Your task to perform on an android device: What's the weather today? Image 0: 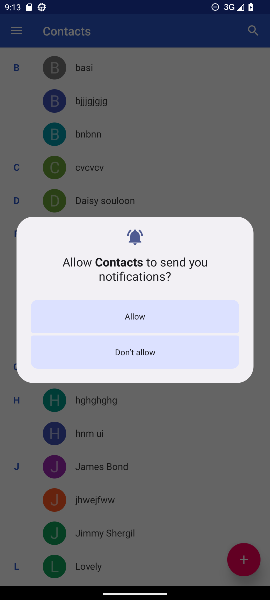
Step 0: press home button
Your task to perform on an android device: What's the weather today? Image 1: 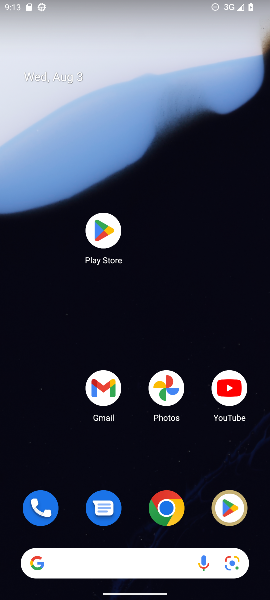
Step 1: click (125, 554)
Your task to perform on an android device: What's the weather today? Image 2: 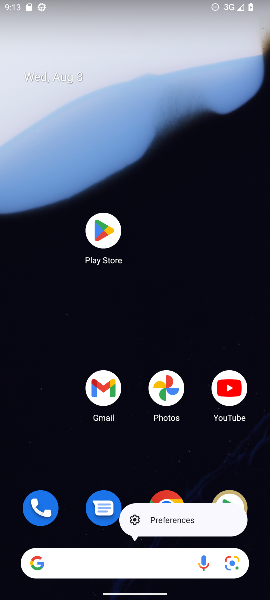
Step 2: click (125, 557)
Your task to perform on an android device: What's the weather today? Image 3: 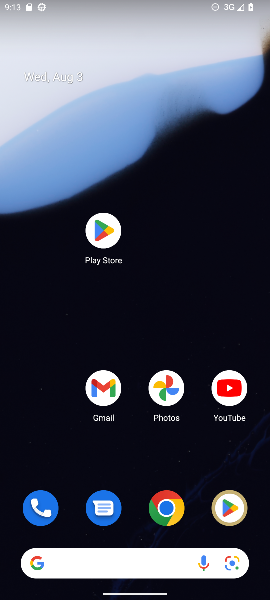
Step 3: click (118, 552)
Your task to perform on an android device: What's the weather today? Image 4: 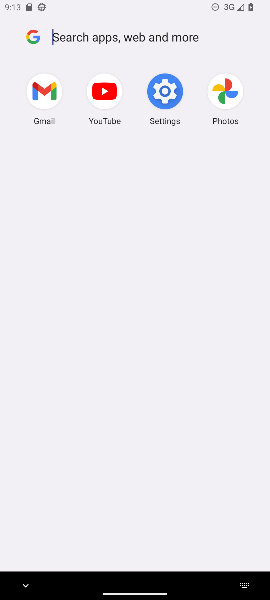
Step 4: press home button
Your task to perform on an android device: What's the weather today? Image 5: 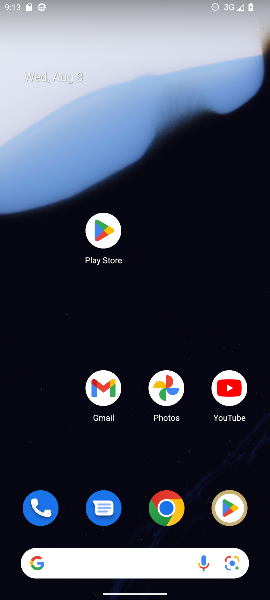
Step 5: drag from (157, 542) to (169, 82)
Your task to perform on an android device: What's the weather today? Image 6: 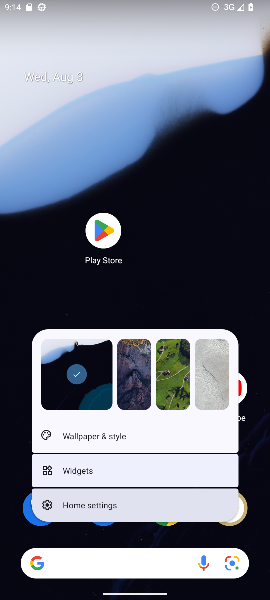
Step 6: click (108, 248)
Your task to perform on an android device: What's the weather today? Image 7: 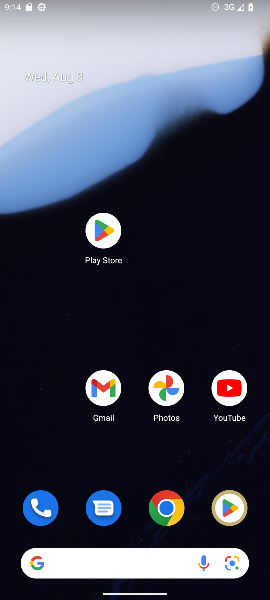
Step 7: drag from (133, 509) to (127, 74)
Your task to perform on an android device: What's the weather today? Image 8: 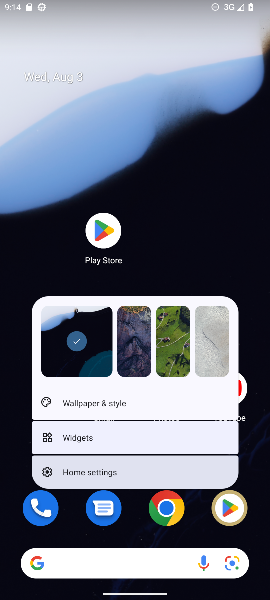
Step 8: click (126, 130)
Your task to perform on an android device: What's the weather today? Image 9: 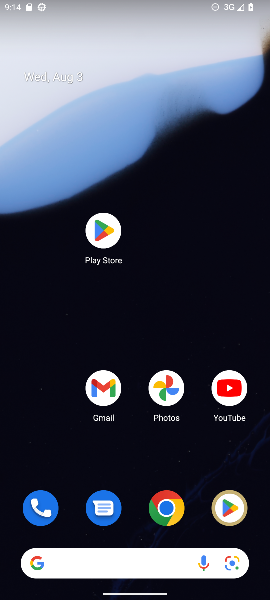
Step 9: drag from (60, 532) to (73, 45)
Your task to perform on an android device: What's the weather today? Image 10: 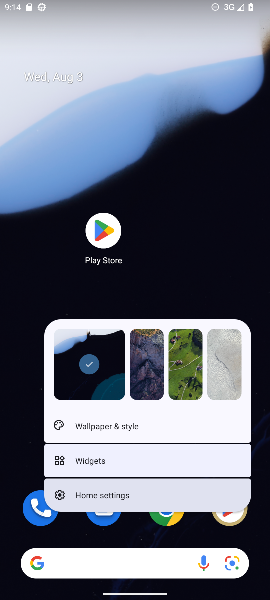
Step 10: click (105, 188)
Your task to perform on an android device: What's the weather today? Image 11: 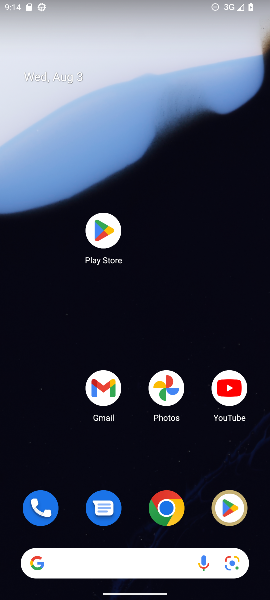
Step 11: drag from (135, 541) to (50, 488)
Your task to perform on an android device: What's the weather today? Image 12: 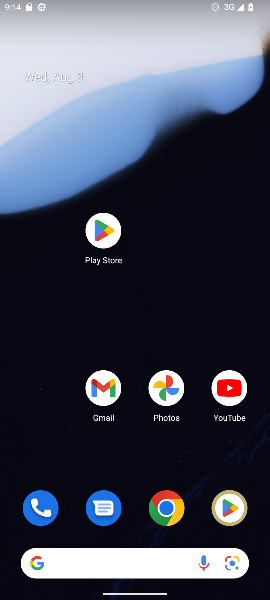
Step 12: drag from (153, 547) to (154, 27)
Your task to perform on an android device: What's the weather today? Image 13: 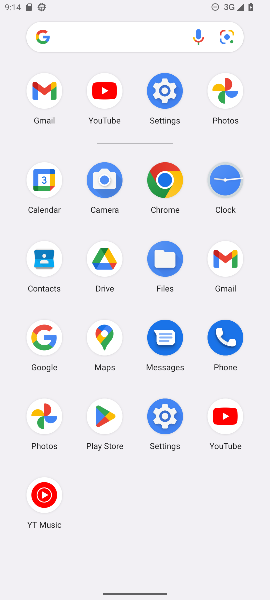
Step 13: click (52, 344)
Your task to perform on an android device: What's the weather today? Image 14: 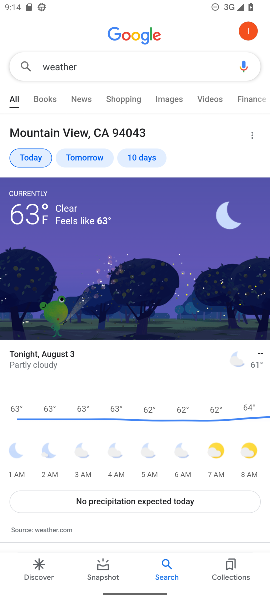
Step 14: click (48, 154)
Your task to perform on an android device: What's the weather today? Image 15: 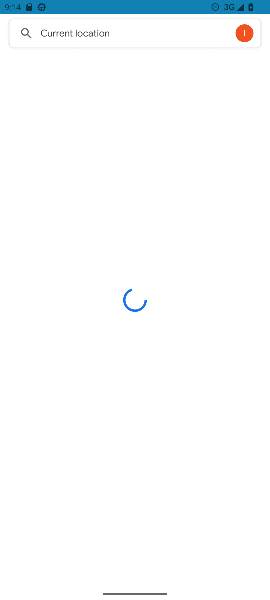
Step 15: task complete